Your task to perform on an android device: check android version Image 0: 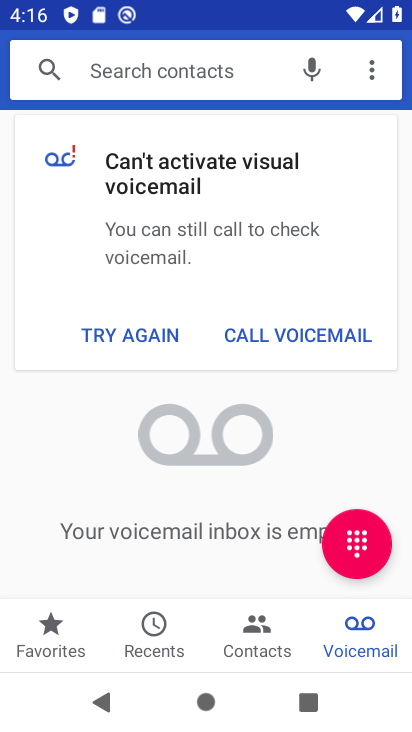
Step 0: press home button
Your task to perform on an android device: check android version Image 1: 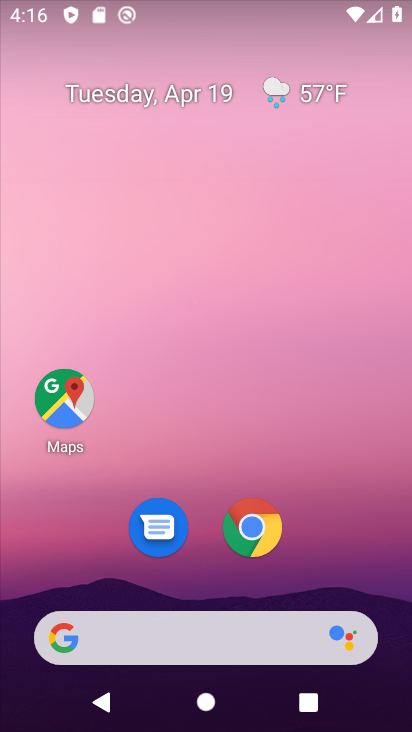
Step 1: drag from (398, 629) to (320, 133)
Your task to perform on an android device: check android version Image 2: 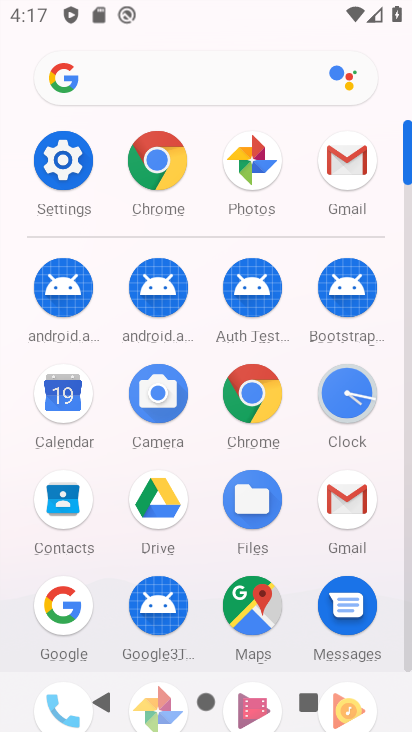
Step 2: click (406, 644)
Your task to perform on an android device: check android version Image 3: 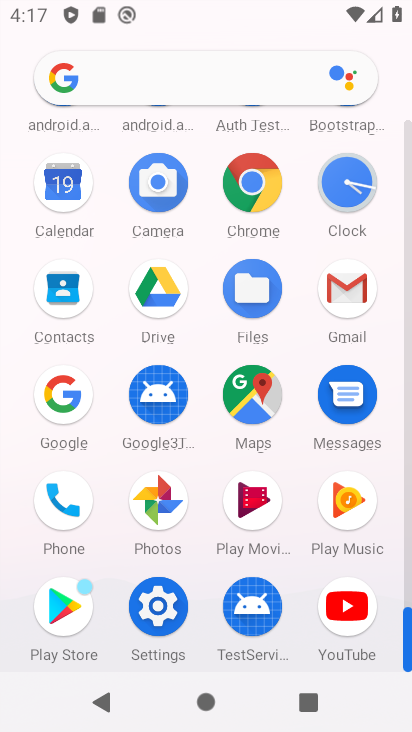
Step 3: click (155, 608)
Your task to perform on an android device: check android version Image 4: 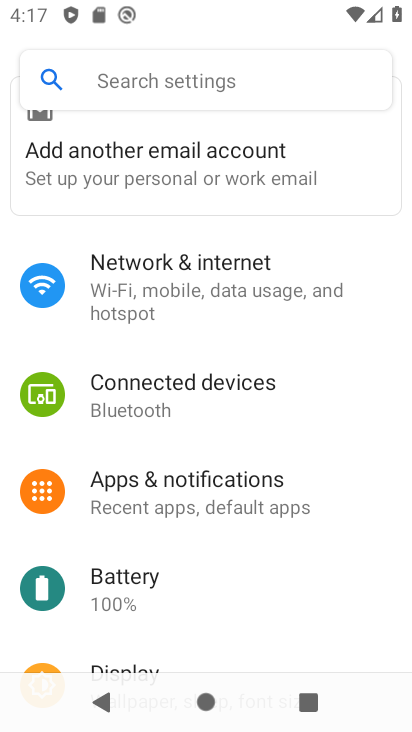
Step 4: drag from (293, 577) to (323, 148)
Your task to perform on an android device: check android version Image 5: 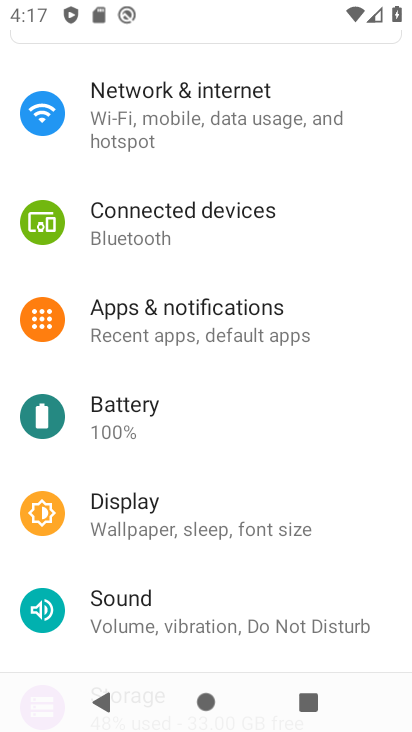
Step 5: drag from (329, 513) to (312, 212)
Your task to perform on an android device: check android version Image 6: 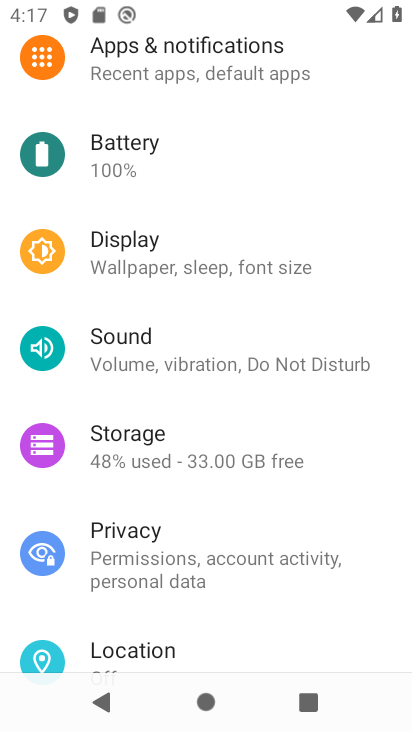
Step 6: drag from (326, 539) to (364, 222)
Your task to perform on an android device: check android version Image 7: 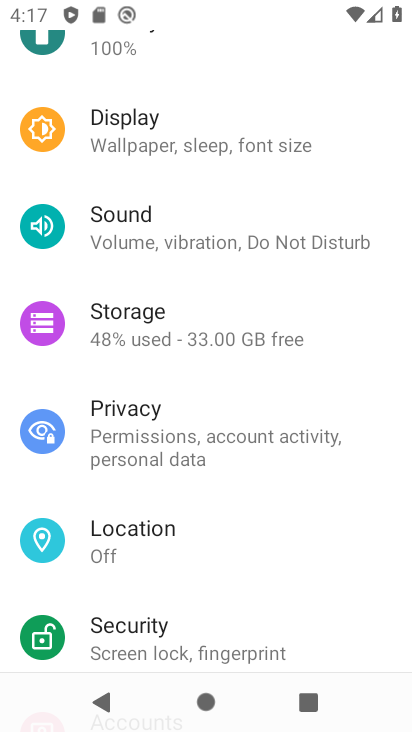
Step 7: drag from (340, 610) to (388, 329)
Your task to perform on an android device: check android version Image 8: 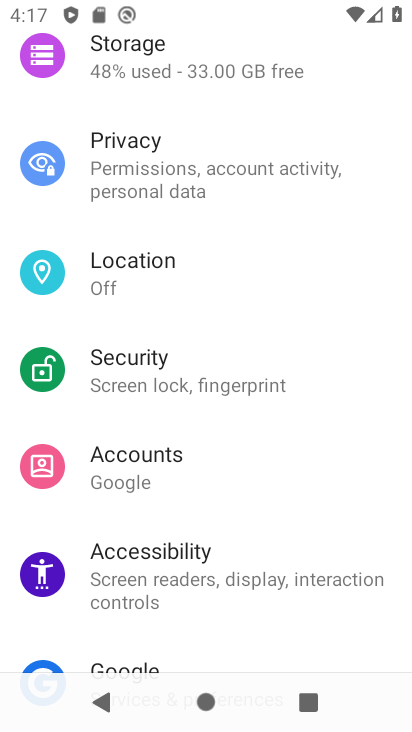
Step 8: drag from (329, 603) to (331, 263)
Your task to perform on an android device: check android version Image 9: 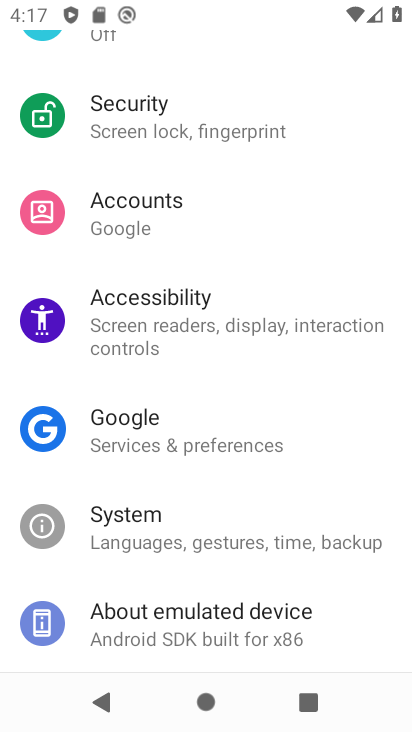
Step 9: click (122, 612)
Your task to perform on an android device: check android version Image 10: 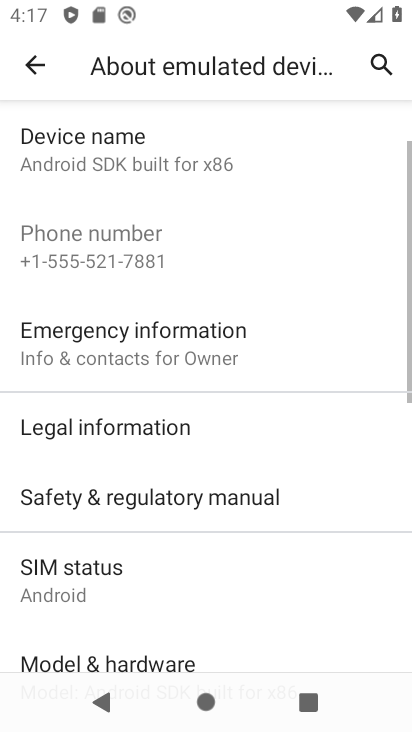
Step 10: drag from (312, 513) to (331, 164)
Your task to perform on an android device: check android version Image 11: 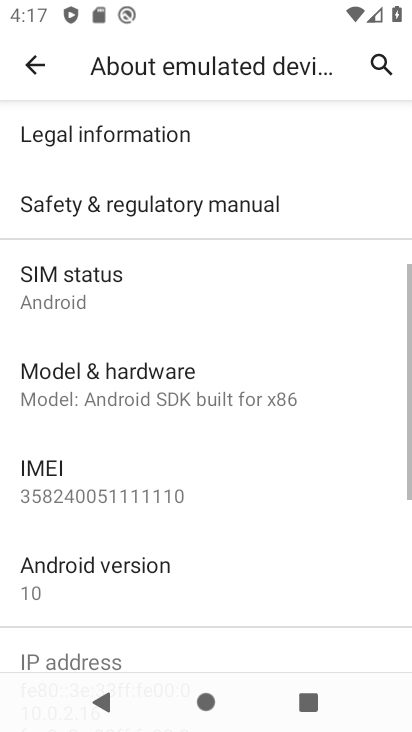
Step 11: click (41, 565)
Your task to perform on an android device: check android version Image 12: 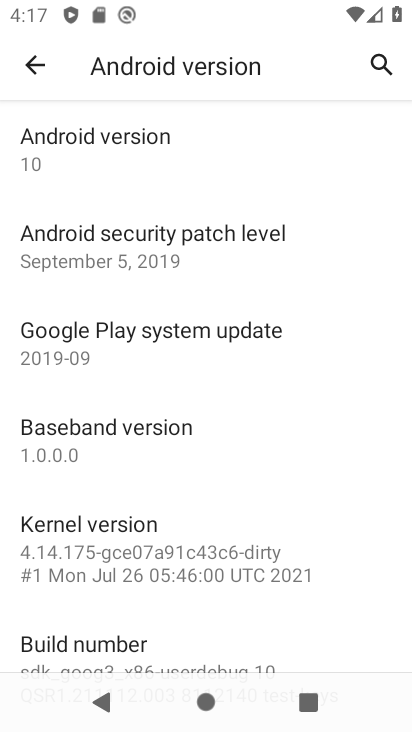
Step 12: task complete